Your task to perform on an android device: add a contact in the contacts app Image 0: 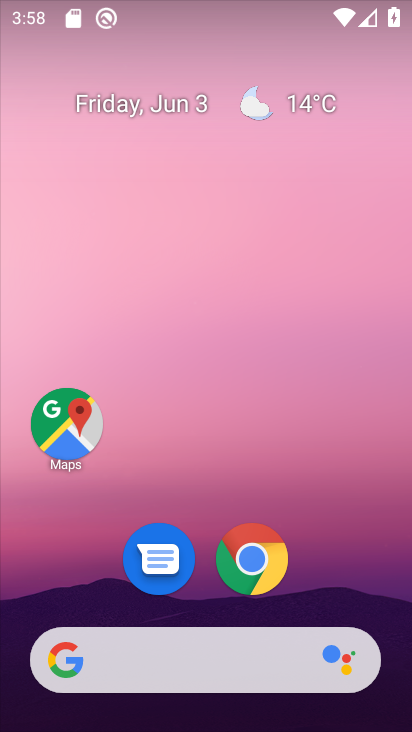
Step 0: click (142, 74)
Your task to perform on an android device: add a contact in the contacts app Image 1: 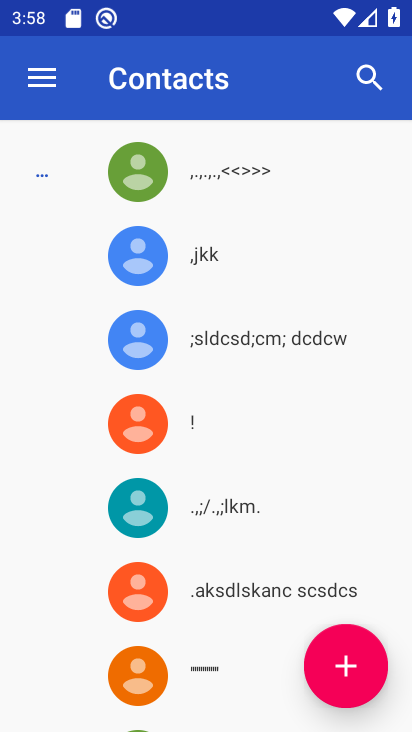
Step 1: click (329, 657)
Your task to perform on an android device: add a contact in the contacts app Image 2: 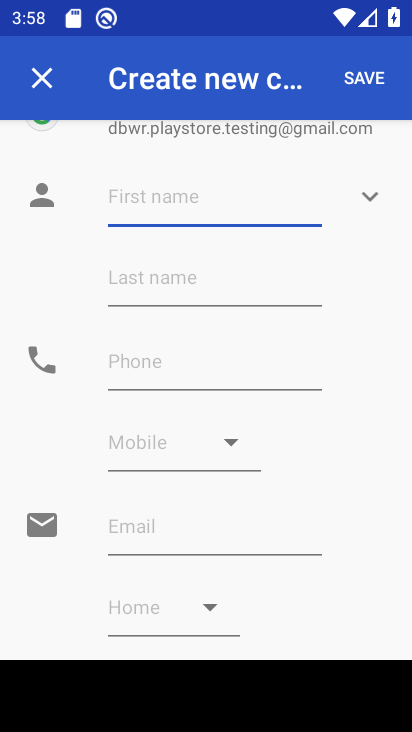
Step 2: click (110, 192)
Your task to perform on an android device: add a contact in the contacts app Image 3: 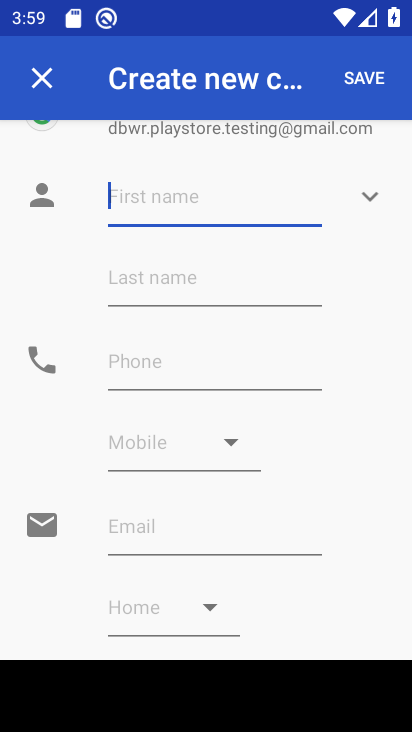
Step 3: type "mnxbvvndb"
Your task to perform on an android device: add a contact in the contacts app Image 4: 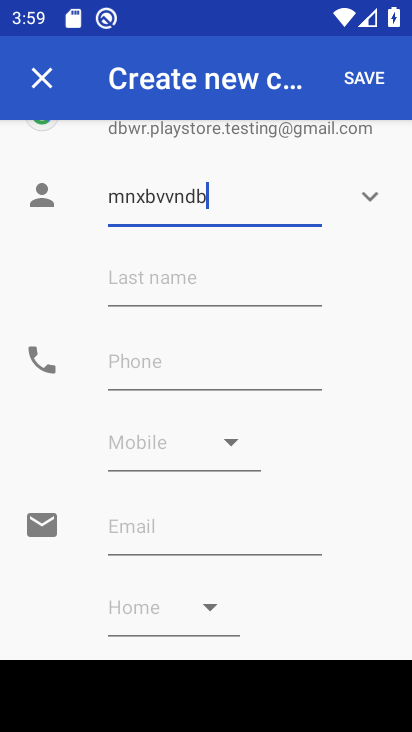
Step 4: click (139, 360)
Your task to perform on an android device: add a contact in the contacts app Image 5: 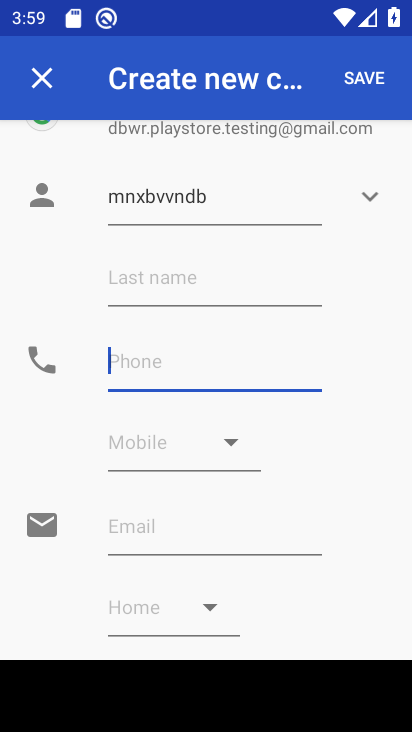
Step 5: click (139, 360)
Your task to perform on an android device: add a contact in the contacts app Image 6: 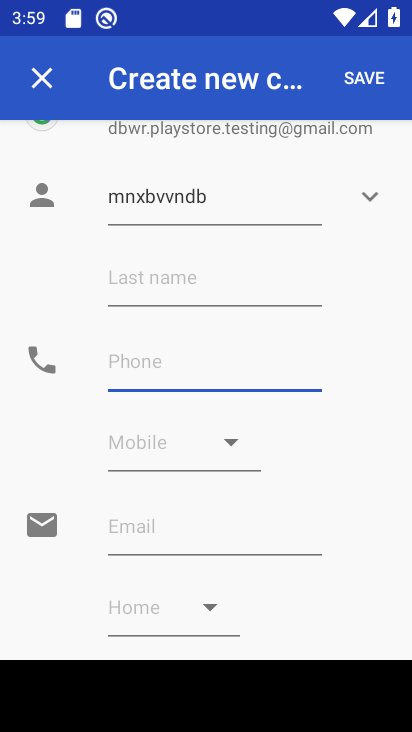
Step 6: type "4674577534"
Your task to perform on an android device: add a contact in the contacts app Image 7: 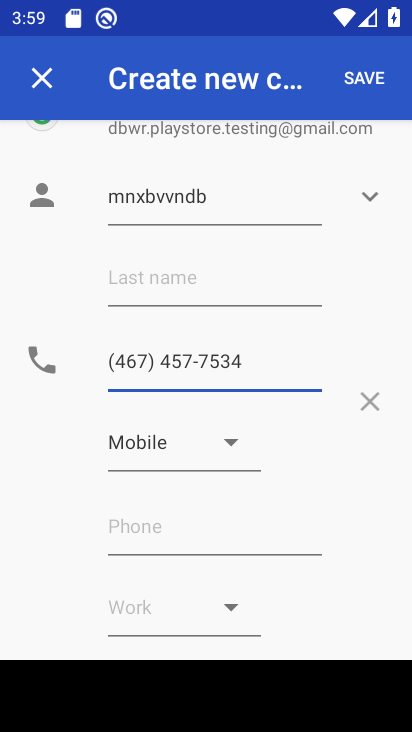
Step 7: click (358, 54)
Your task to perform on an android device: add a contact in the contacts app Image 8: 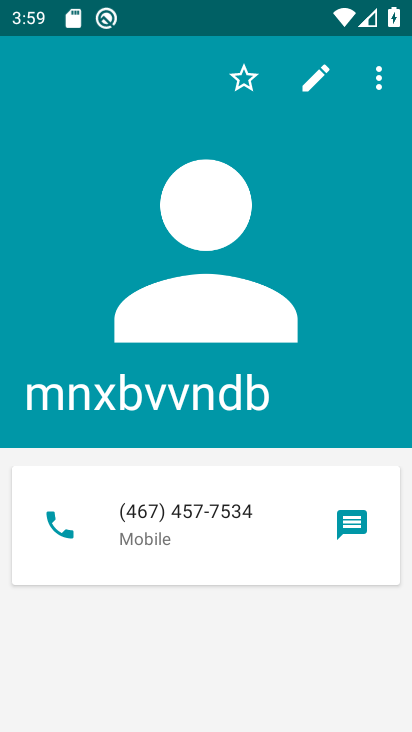
Step 8: task complete